Your task to perform on an android device: check the backup settings in the google photos Image 0: 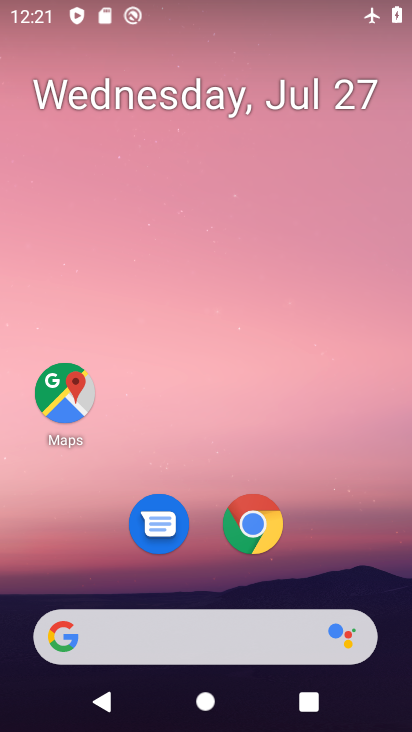
Step 0: drag from (310, 555) to (353, 29)
Your task to perform on an android device: check the backup settings in the google photos Image 1: 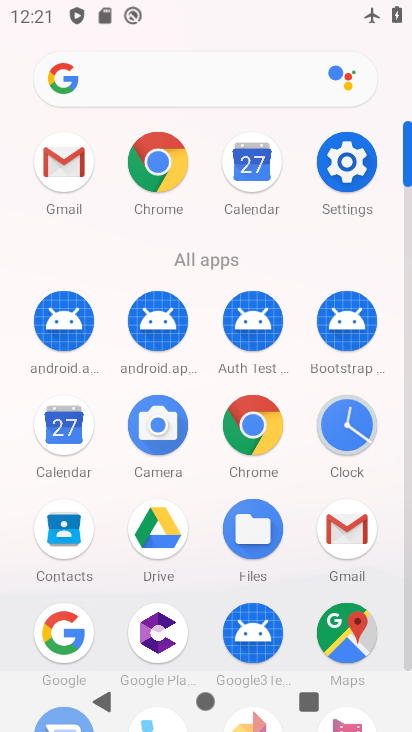
Step 1: drag from (286, 554) to (341, 239)
Your task to perform on an android device: check the backup settings in the google photos Image 2: 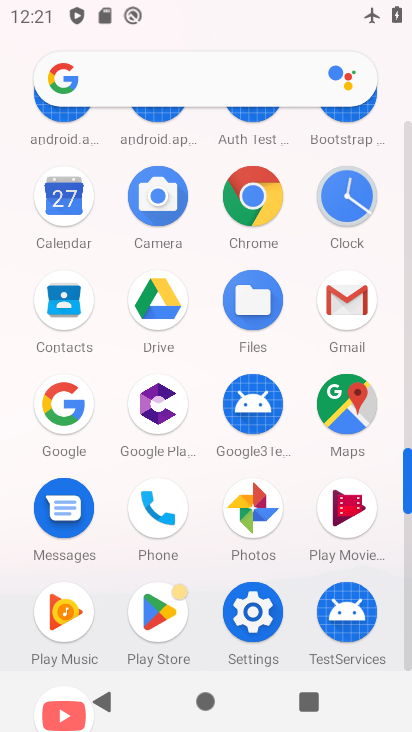
Step 2: click (257, 496)
Your task to perform on an android device: check the backup settings in the google photos Image 3: 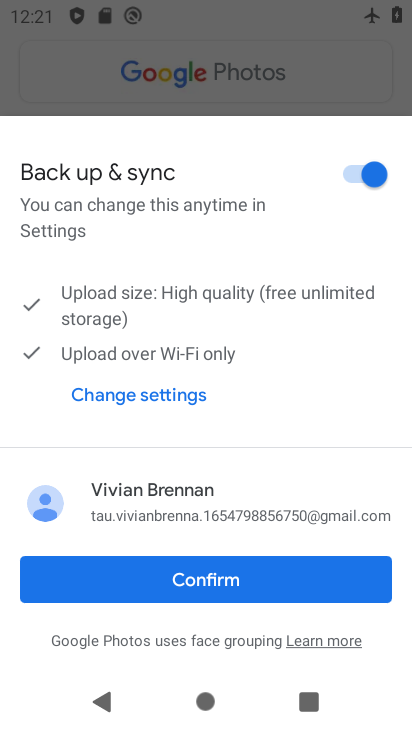
Step 3: click (260, 586)
Your task to perform on an android device: check the backup settings in the google photos Image 4: 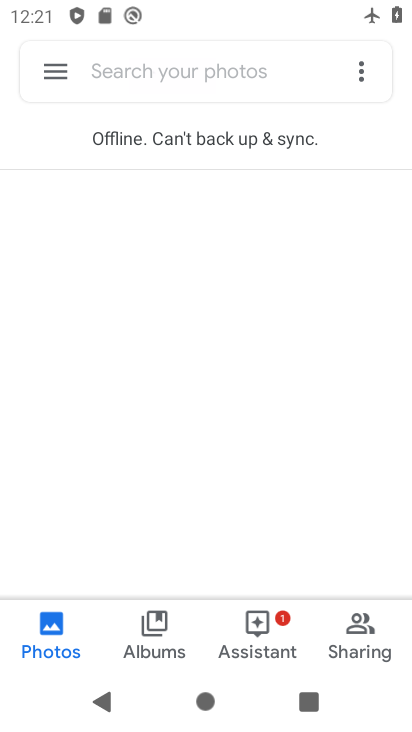
Step 4: click (59, 73)
Your task to perform on an android device: check the backup settings in the google photos Image 5: 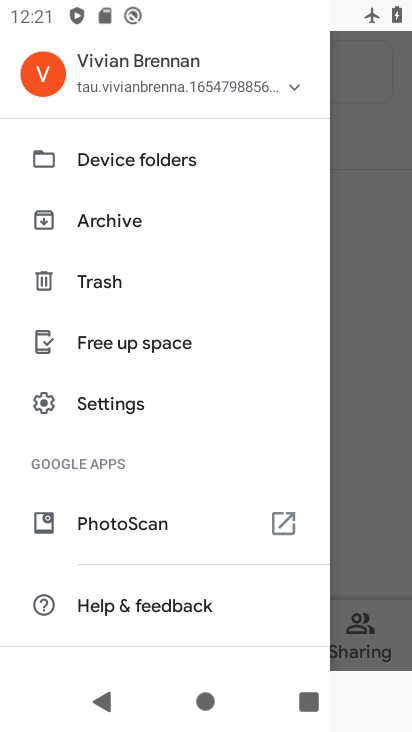
Step 5: click (90, 408)
Your task to perform on an android device: check the backup settings in the google photos Image 6: 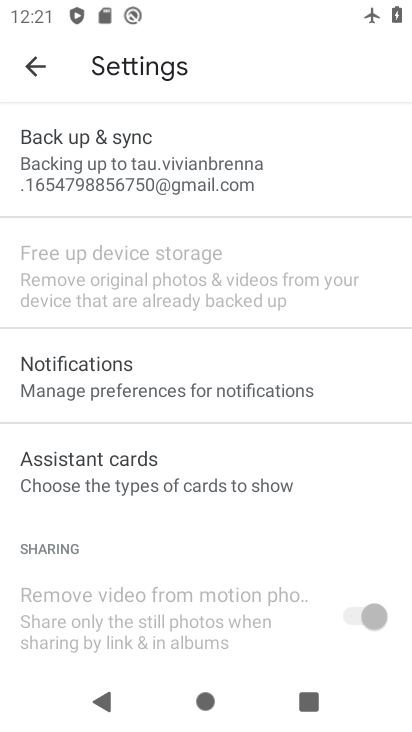
Step 6: click (106, 156)
Your task to perform on an android device: check the backup settings in the google photos Image 7: 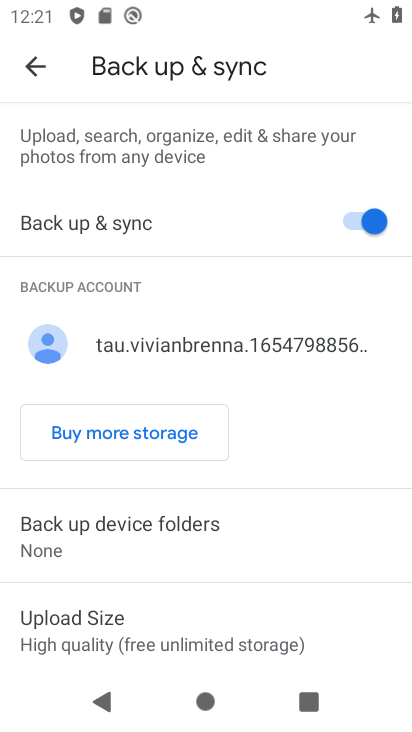
Step 7: task complete